Your task to perform on an android device: install app "TextNow: Call + Text Unlimited" Image 0: 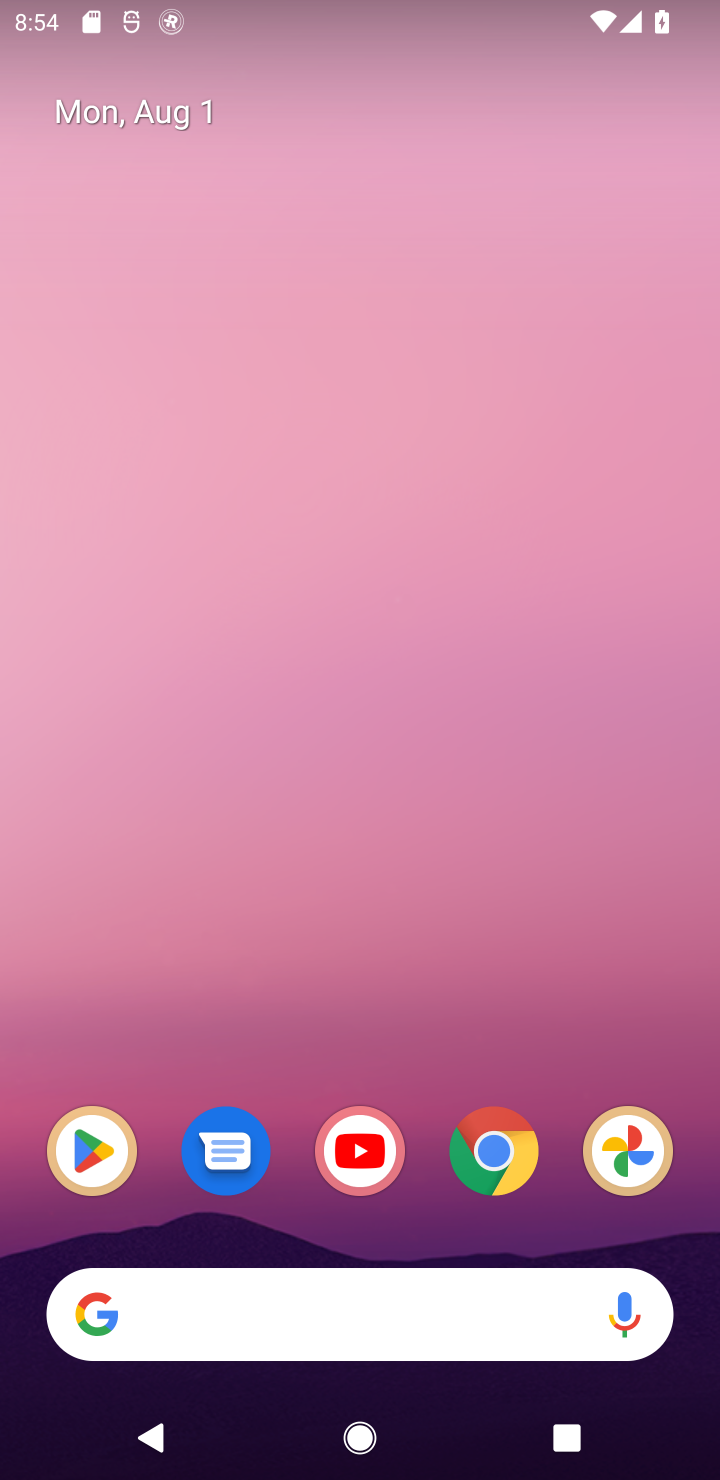
Step 0: click (123, 1155)
Your task to perform on an android device: install app "TextNow: Call + Text Unlimited" Image 1: 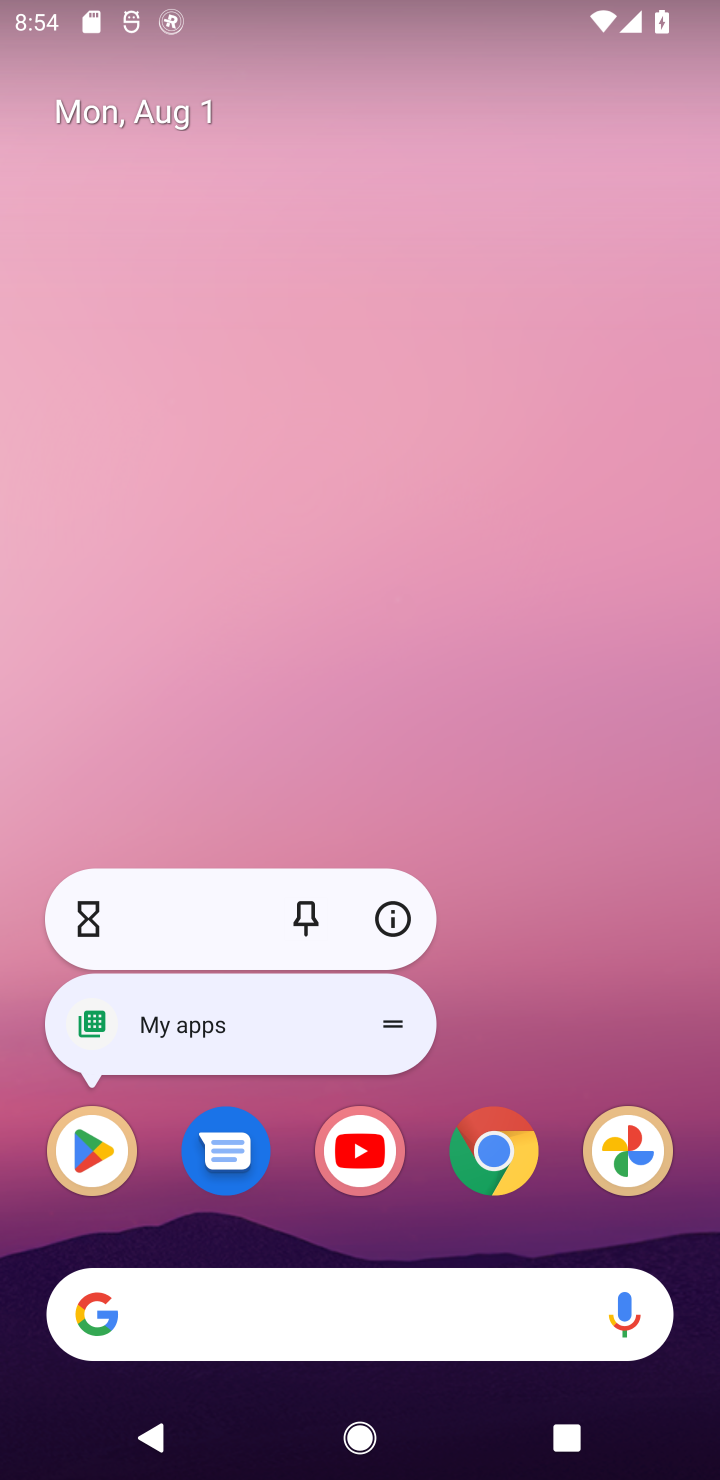
Step 1: click (123, 1155)
Your task to perform on an android device: install app "TextNow: Call + Text Unlimited" Image 2: 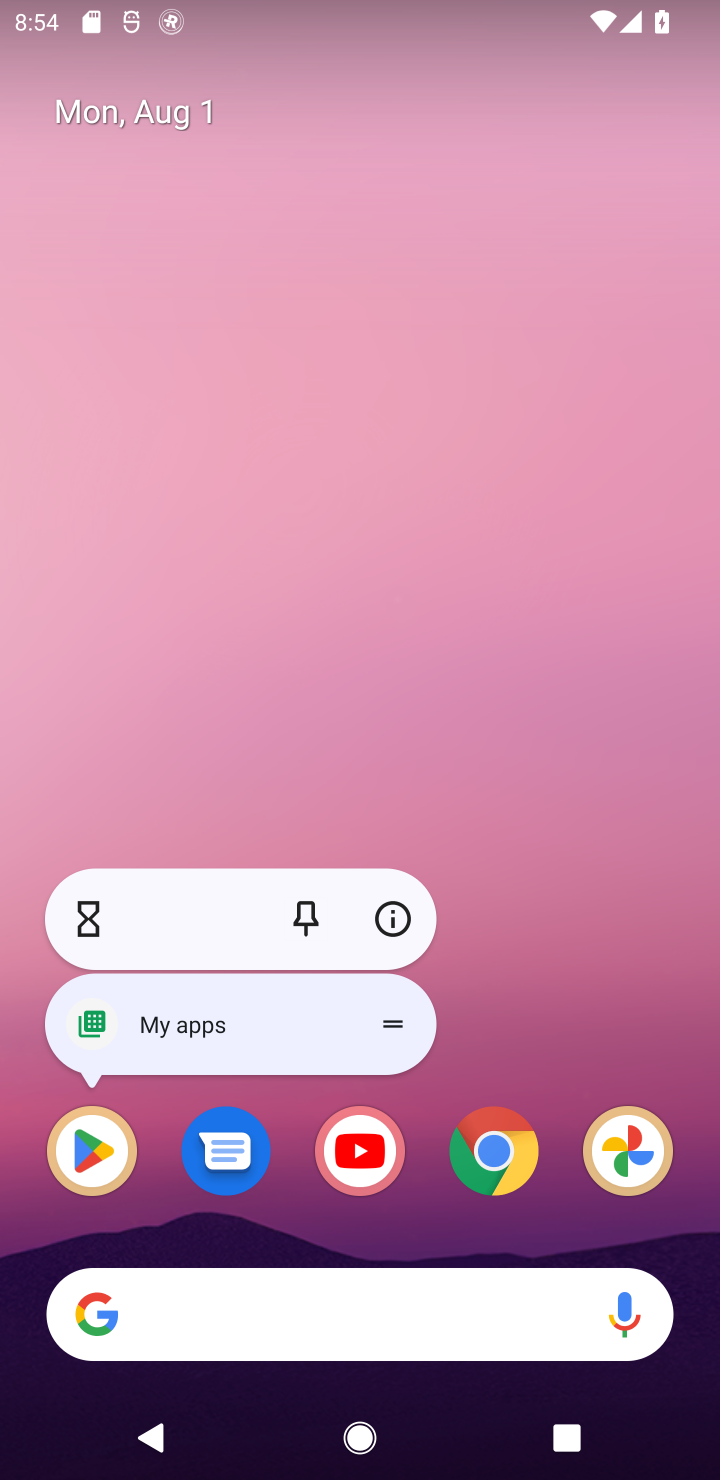
Step 2: click (123, 1155)
Your task to perform on an android device: install app "TextNow: Call + Text Unlimited" Image 3: 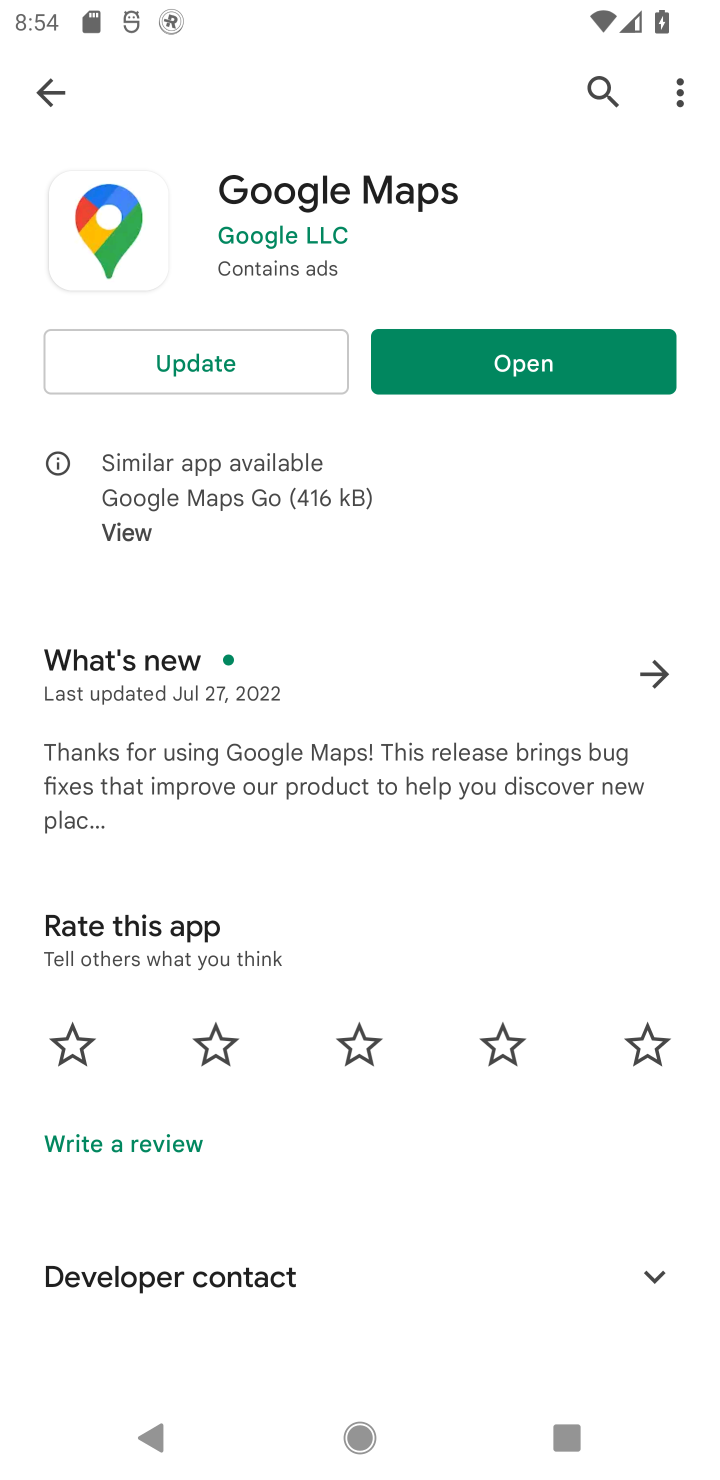
Step 3: click (591, 102)
Your task to perform on an android device: install app "TextNow: Call + Text Unlimited" Image 4: 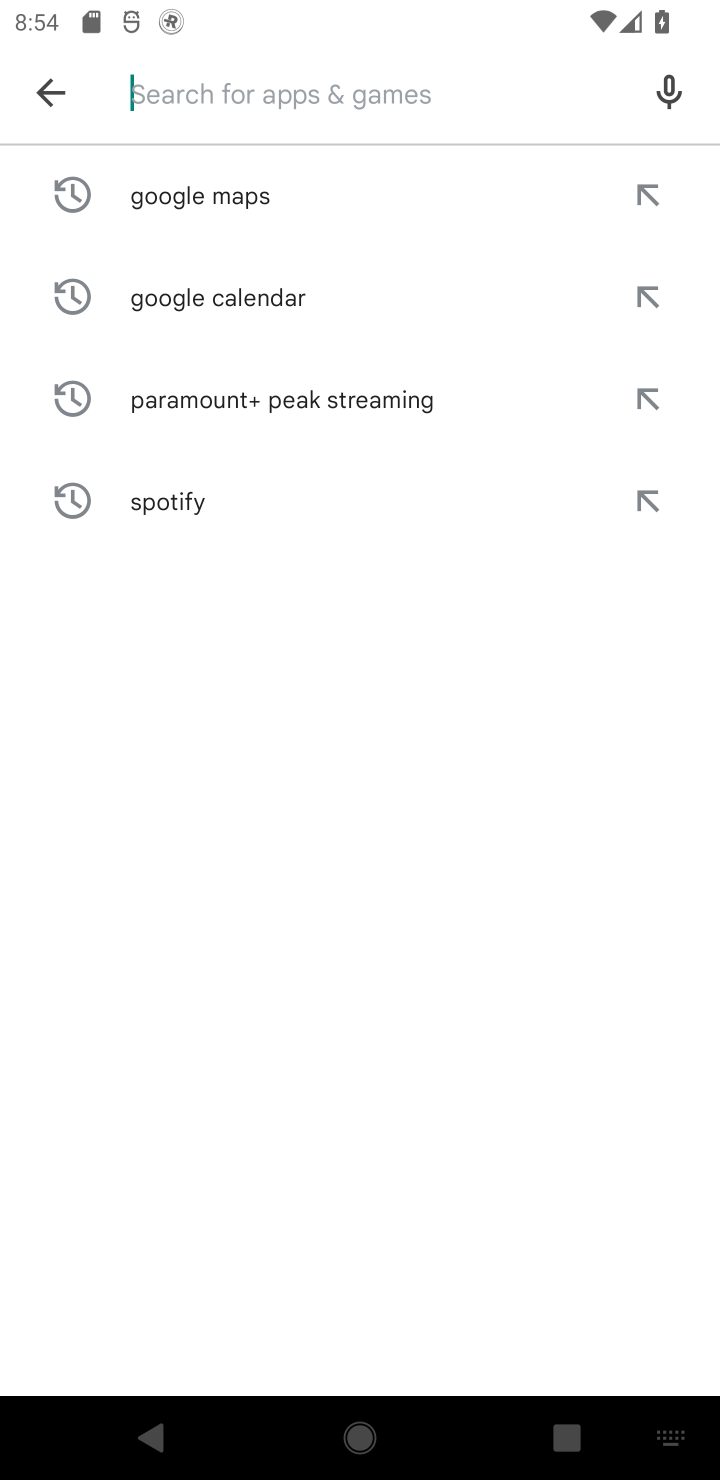
Step 4: type "TextNow: Call + Text Unlimited"
Your task to perform on an android device: install app "TextNow: Call + Text Unlimited" Image 5: 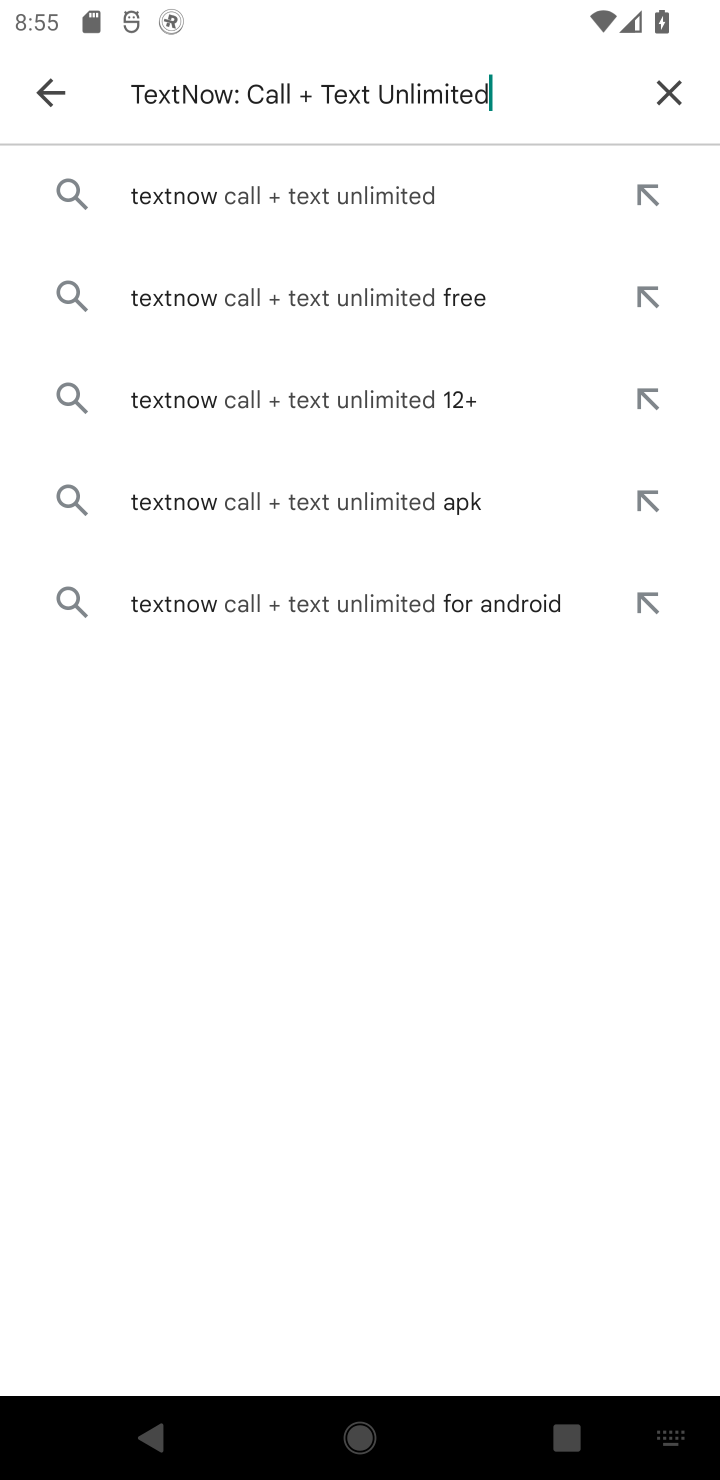
Step 5: click (403, 199)
Your task to perform on an android device: install app "TextNow: Call + Text Unlimited" Image 6: 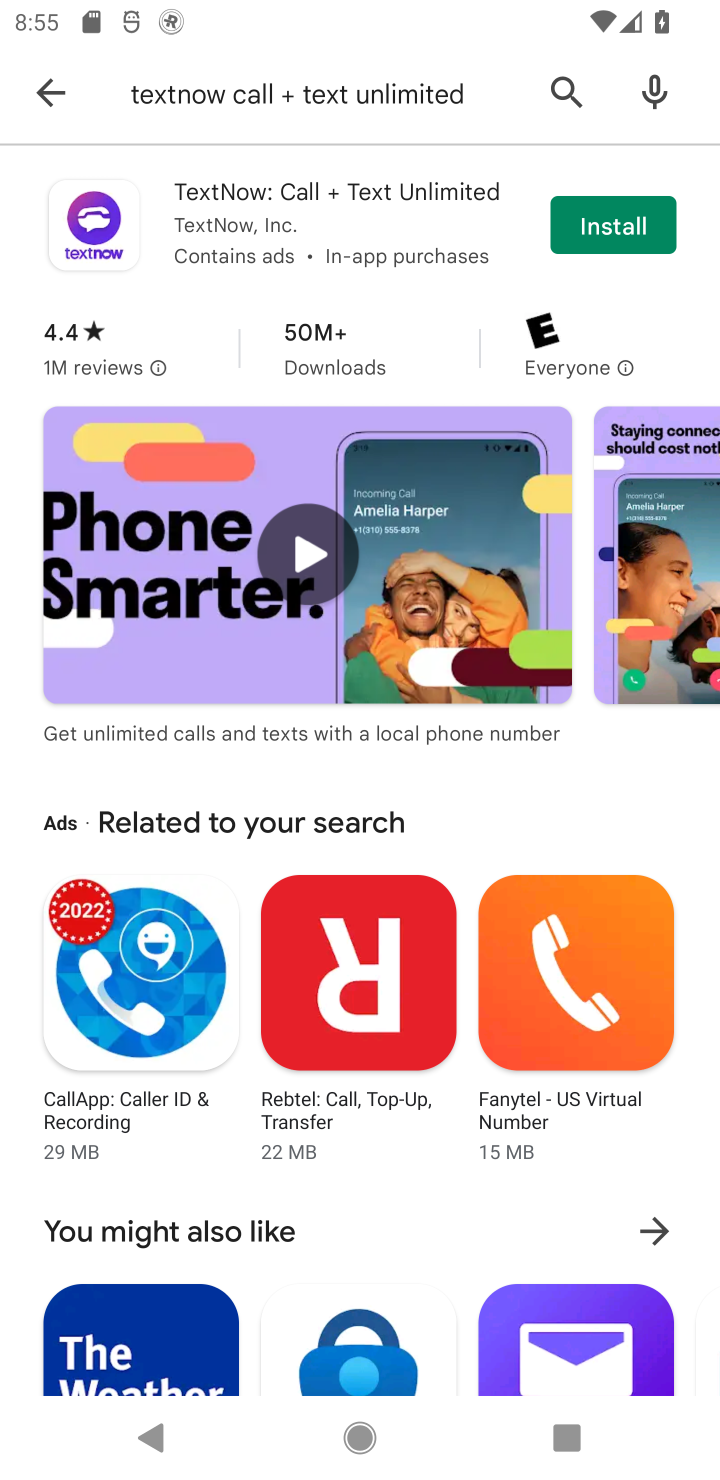
Step 6: click (595, 237)
Your task to perform on an android device: install app "TextNow: Call + Text Unlimited" Image 7: 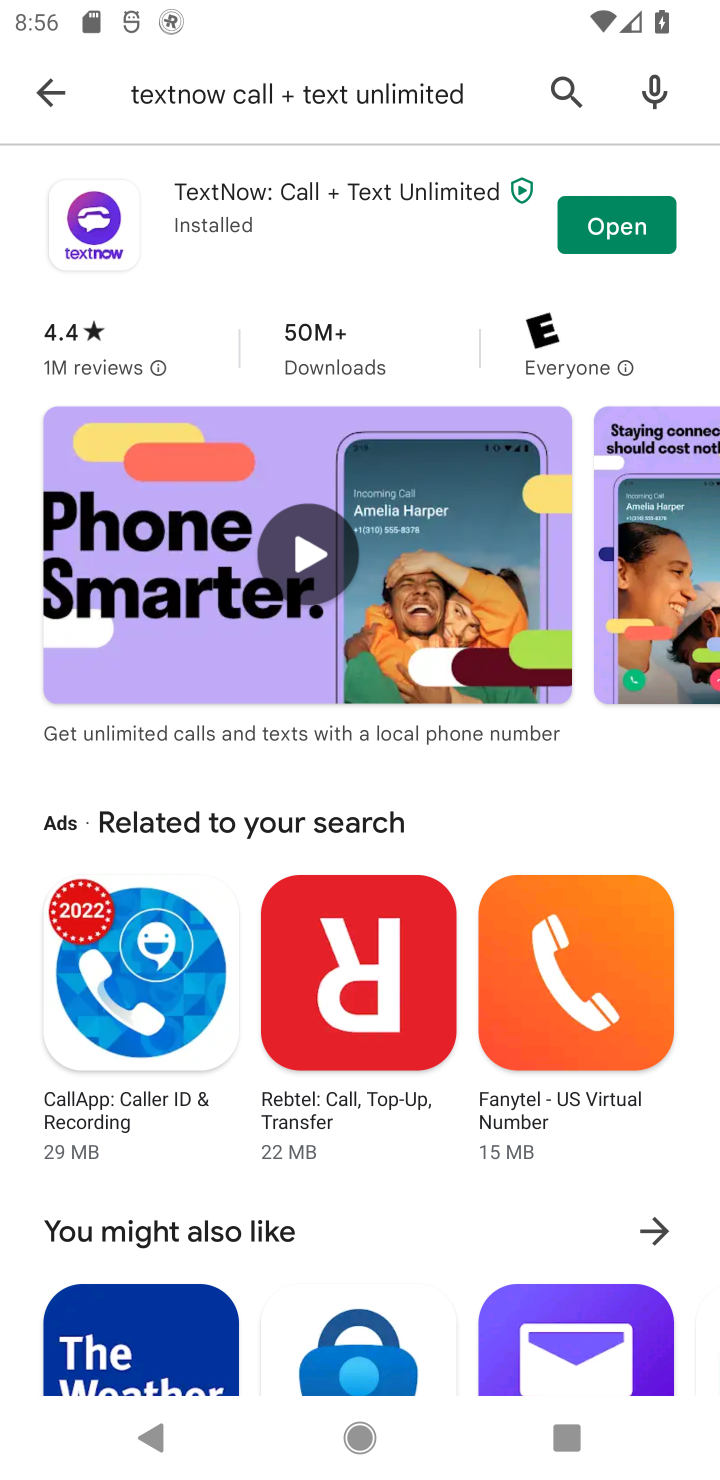
Step 7: task complete